Your task to perform on an android device: visit the assistant section in the google photos Image 0: 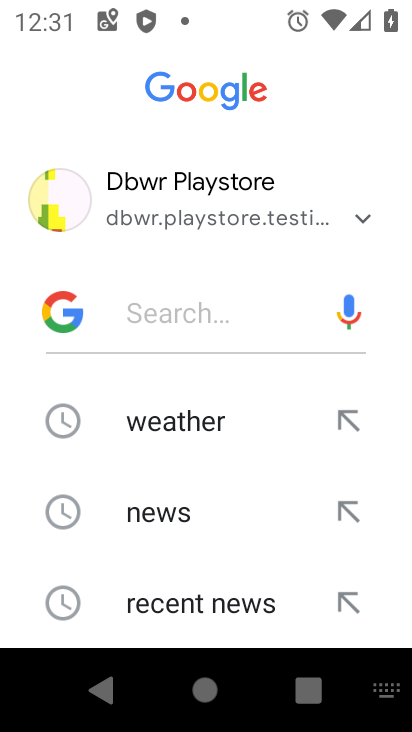
Step 0: press home button
Your task to perform on an android device: visit the assistant section in the google photos Image 1: 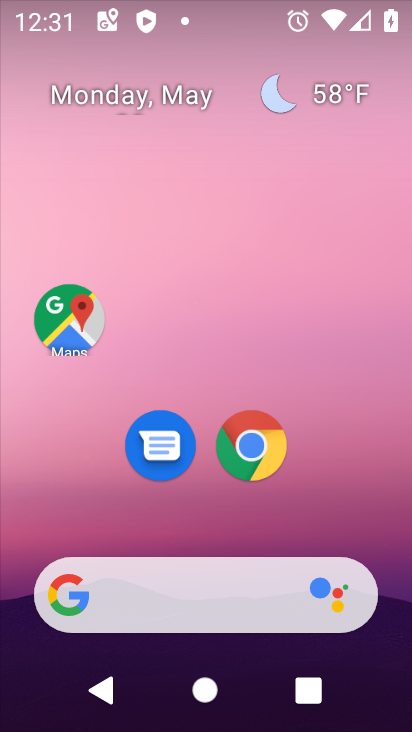
Step 1: drag from (204, 427) to (197, 85)
Your task to perform on an android device: visit the assistant section in the google photos Image 2: 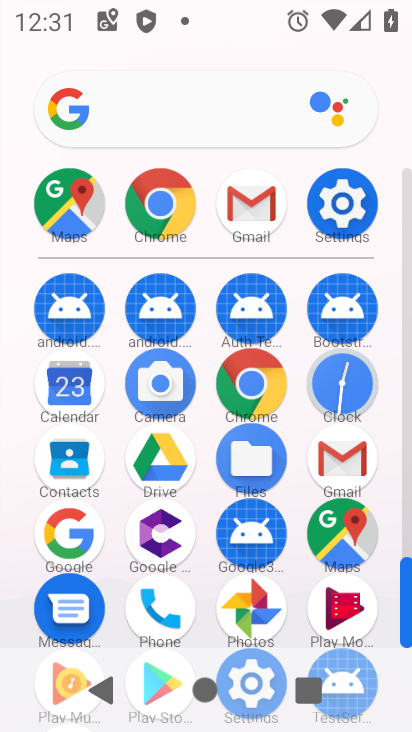
Step 2: click (246, 602)
Your task to perform on an android device: visit the assistant section in the google photos Image 3: 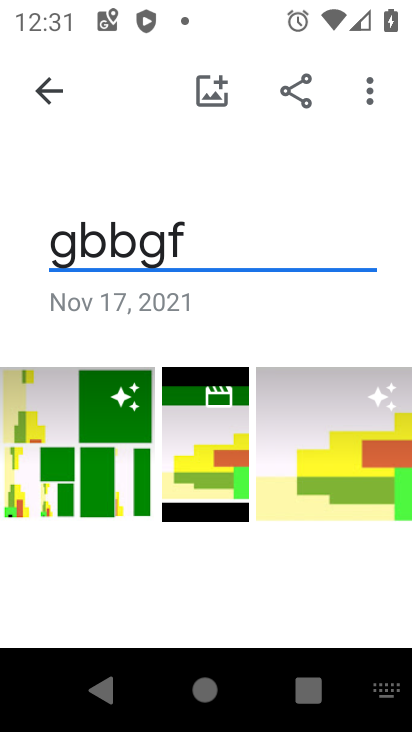
Step 3: click (48, 101)
Your task to perform on an android device: visit the assistant section in the google photos Image 4: 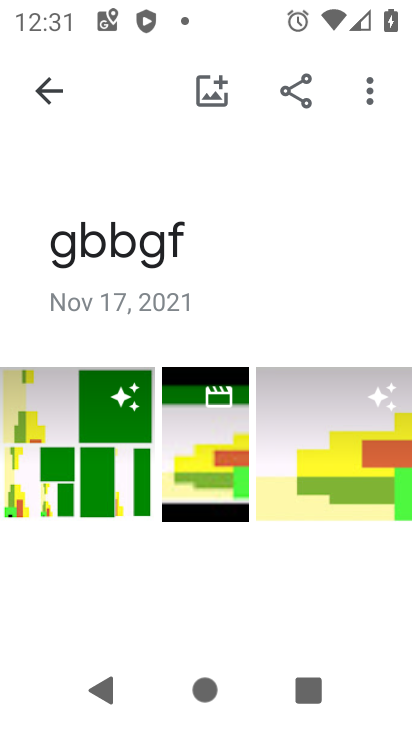
Step 4: click (50, 94)
Your task to perform on an android device: visit the assistant section in the google photos Image 5: 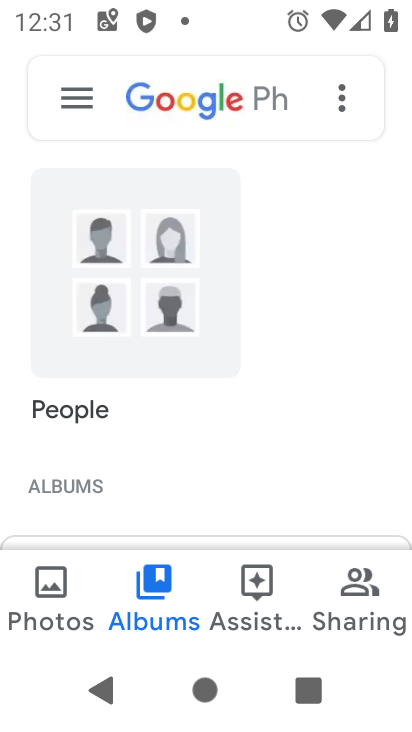
Step 5: click (253, 578)
Your task to perform on an android device: visit the assistant section in the google photos Image 6: 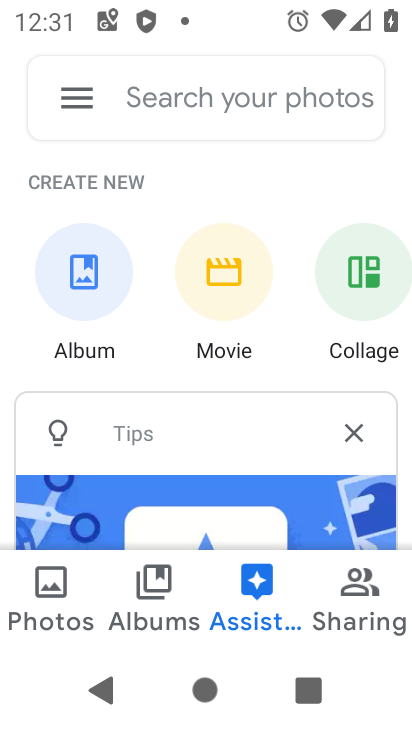
Step 6: task complete